Your task to perform on an android device: toggle wifi Image 0: 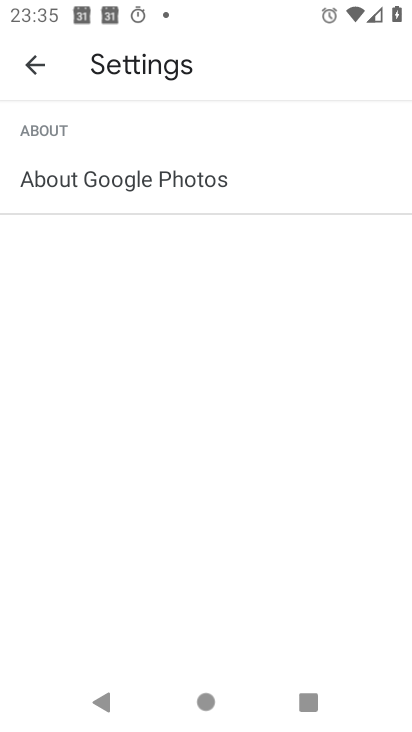
Step 0: press home button
Your task to perform on an android device: toggle wifi Image 1: 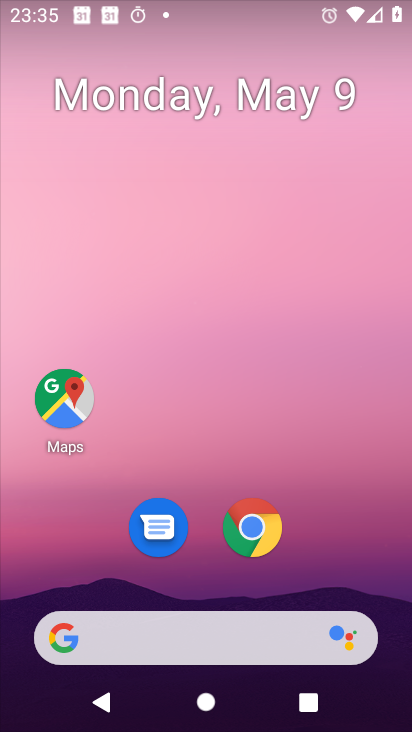
Step 1: drag from (197, 585) to (175, 53)
Your task to perform on an android device: toggle wifi Image 2: 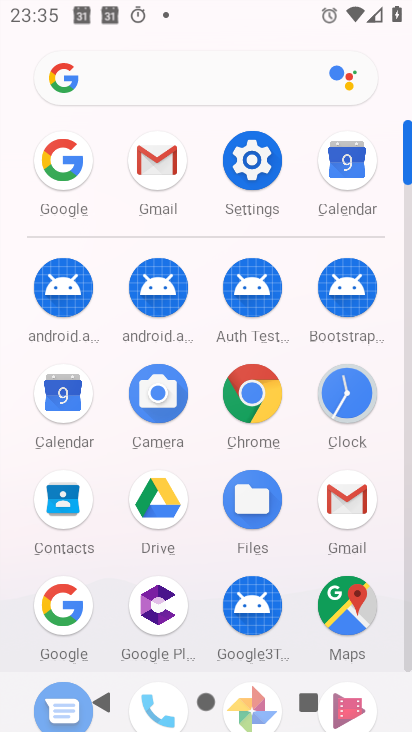
Step 2: click (254, 159)
Your task to perform on an android device: toggle wifi Image 3: 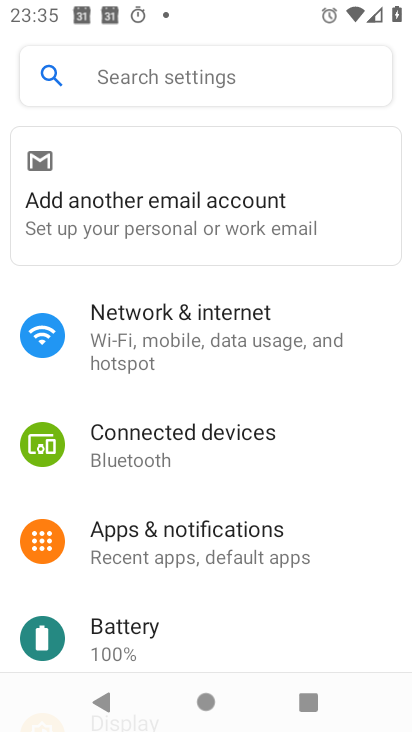
Step 3: click (129, 349)
Your task to perform on an android device: toggle wifi Image 4: 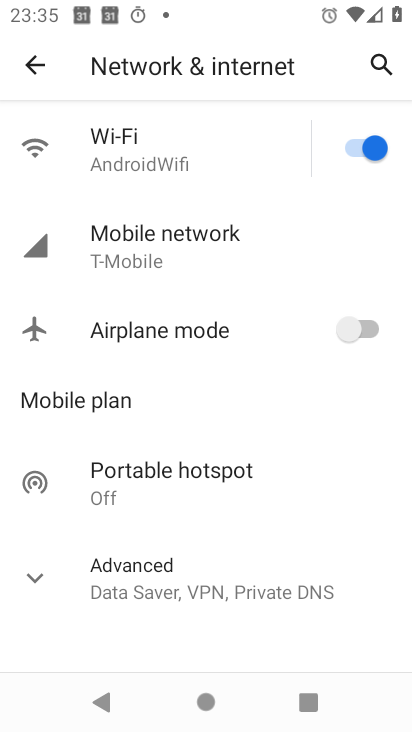
Step 4: click (382, 144)
Your task to perform on an android device: toggle wifi Image 5: 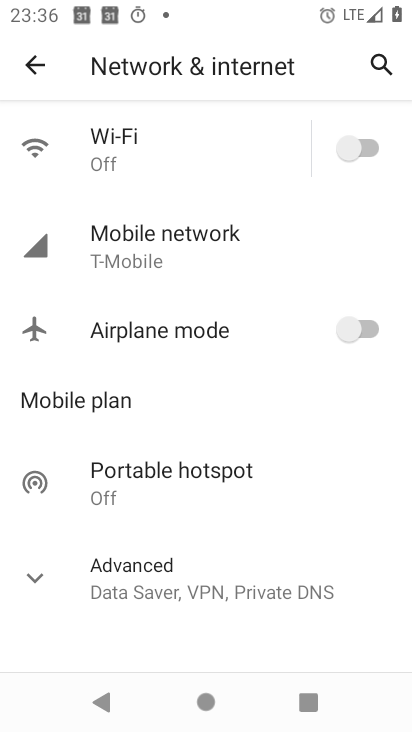
Step 5: task complete